Your task to perform on an android device: Open settings on Google Maps Image 0: 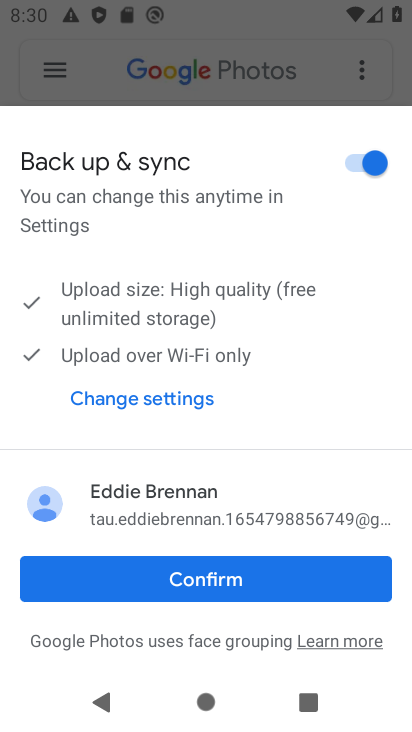
Step 0: press home button
Your task to perform on an android device: Open settings on Google Maps Image 1: 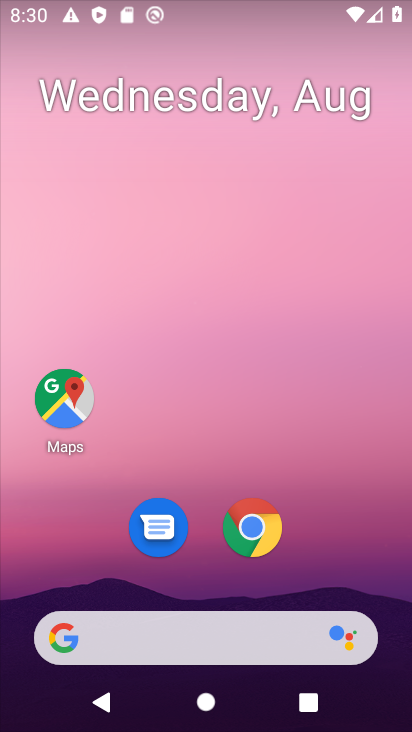
Step 1: click (53, 403)
Your task to perform on an android device: Open settings on Google Maps Image 2: 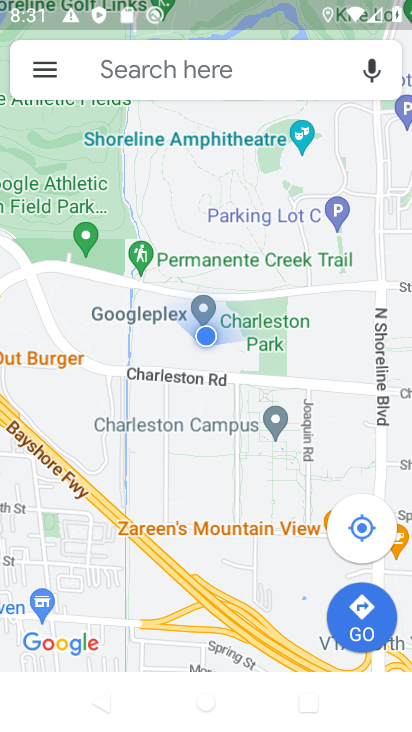
Step 2: task complete